Your task to perform on an android device: Go to display settings Image 0: 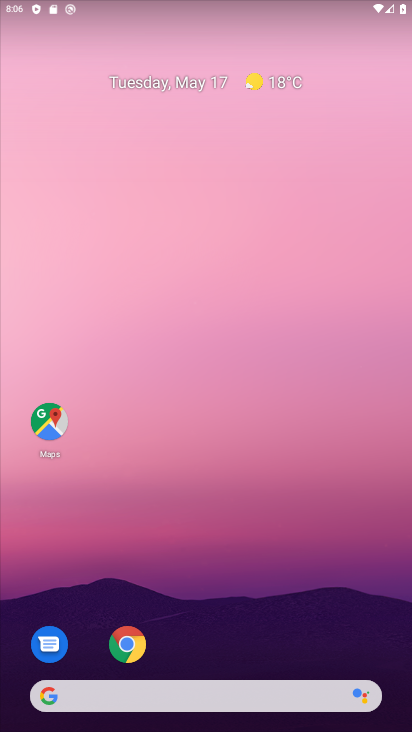
Step 0: drag from (189, 612) to (262, 130)
Your task to perform on an android device: Go to display settings Image 1: 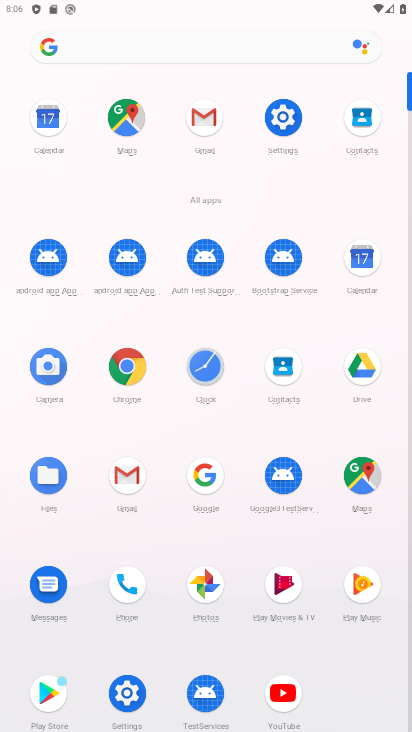
Step 1: click (289, 118)
Your task to perform on an android device: Go to display settings Image 2: 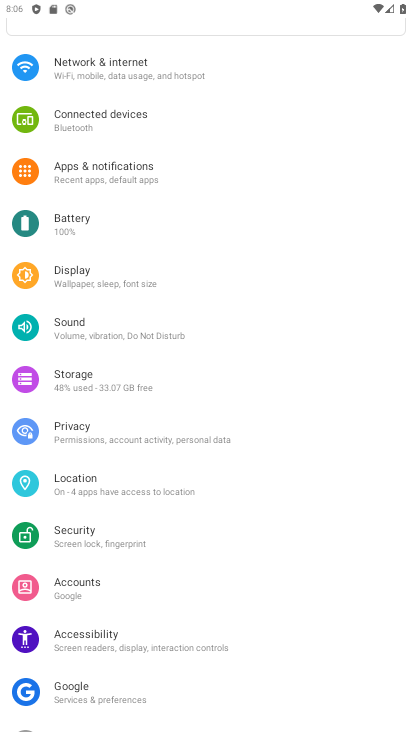
Step 2: click (93, 272)
Your task to perform on an android device: Go to display settings Image 3: 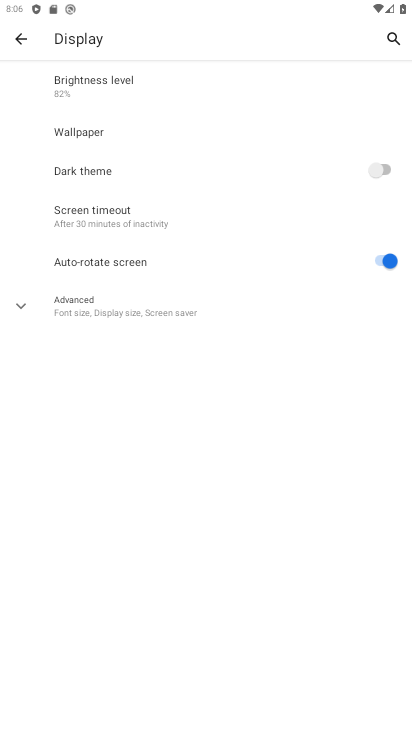
Step 3: task complete